Your task to perform on an android device: turn on data saver in the chrome app Image 0: 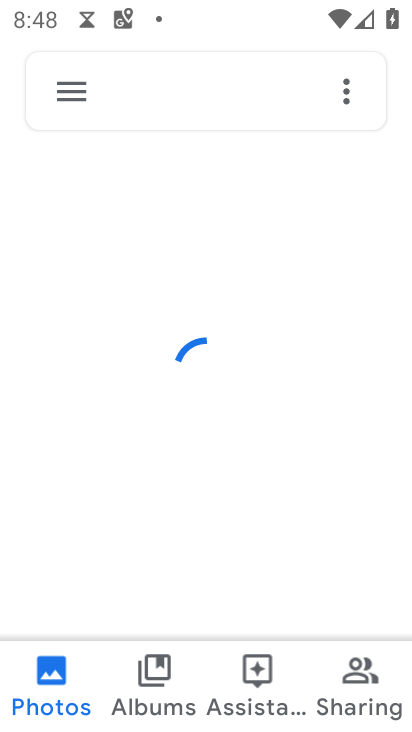
Step 0: press home button
Your task to perform on an android device: turn on data saver in the chrome app Image 1: 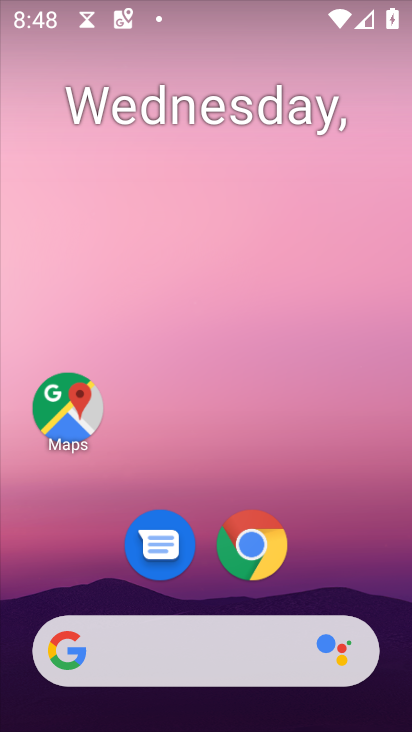
Step 1: click (255, 546)
Your task to perform on an android device: turn on data saver in the chrome app Image 2: 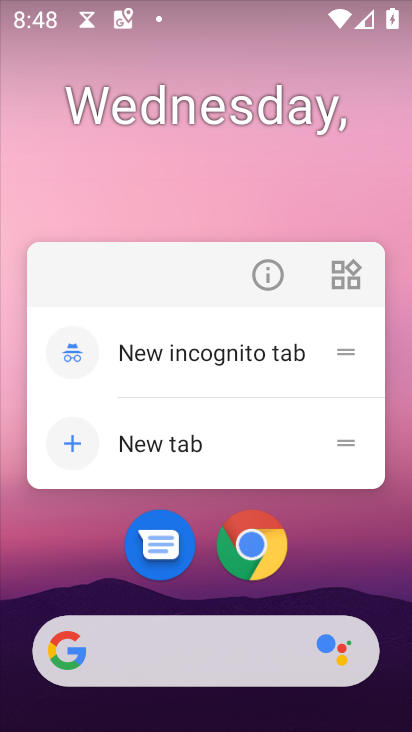
Step 2: click (255, 546)
Your task to perform on an android device: turn on data saver in the chrome app Image 3: 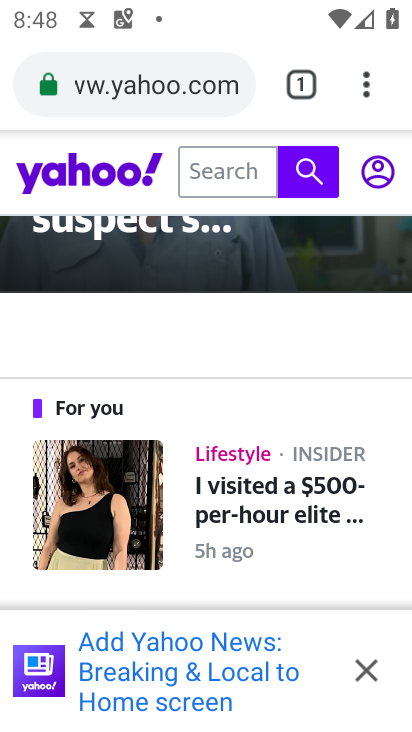
Step 3: drag from (370, 90) to (175, 591)
Your task to perform on an android device: turn on data saver in the chrome app Image 4: 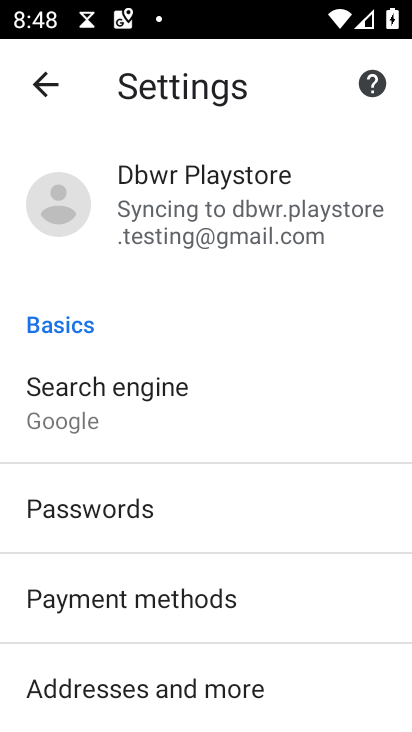
Step 4: drag from (241, 668) to (376, 251)
Your task to perform on an android device: turn on data saver in the chrome app Image 5: 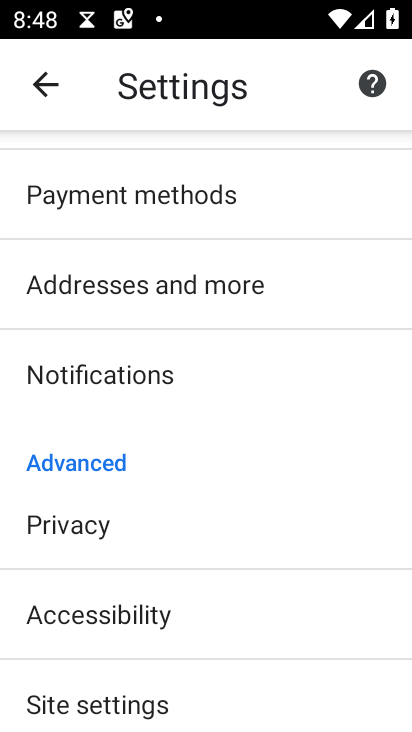
Step 5: drag from (190, 630) to (343, 182)
Your task to perform on an android device: turn on data saver in the chrome app Image 6: 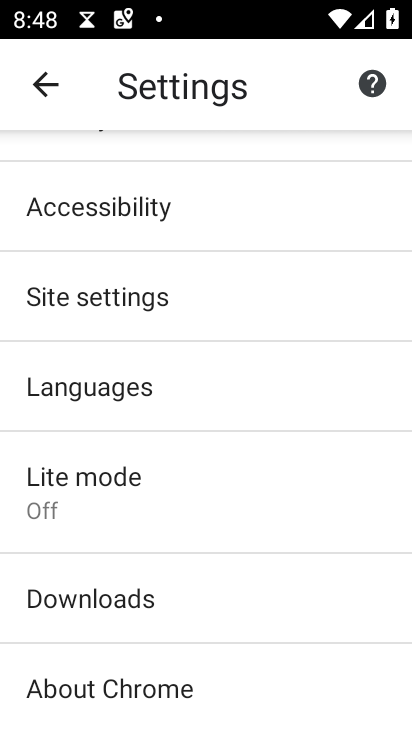
Step 6: click (109, 485)
Your task to perform on an android device: turn on data saver in the chrome app Image 7: 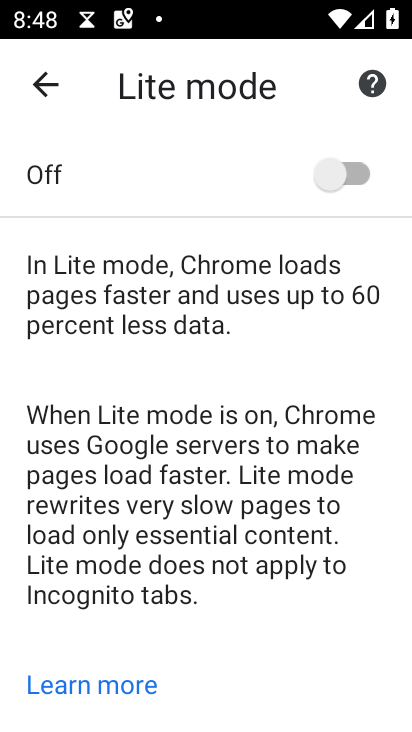
Step 7: click (356, 169)
Your task to perform on an android device: turn on data saver in the chrome app Image 8: 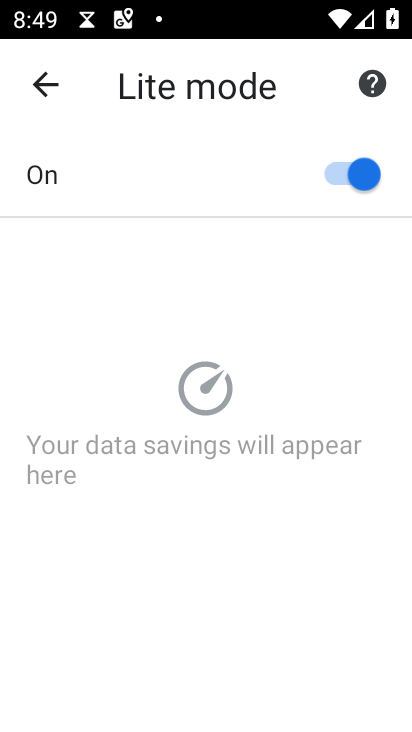
Step 8: task complete